Your task to perform on an android device: open a bookmark in the chrome app Image 0: 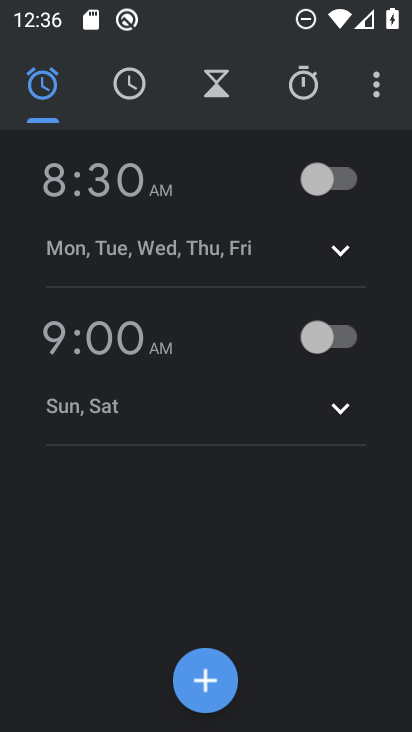
Step 0: press home button
Your task to perform on an android device: open a bookmark in the chrome app Image 1: 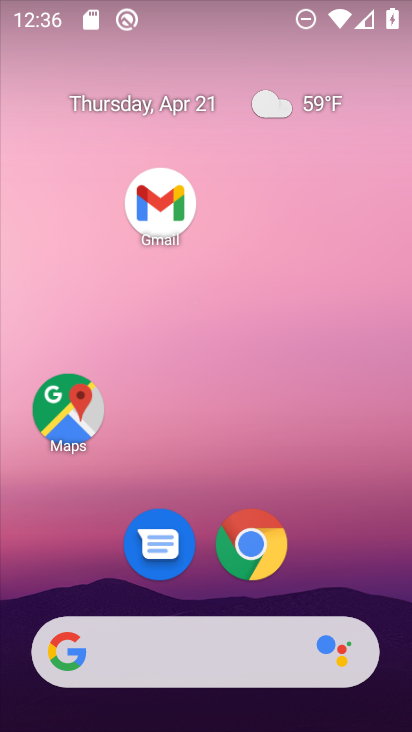
Step 1: click (259, 542)
Your task to perform on an android device: open a bookmark in the chrome app Image 2: 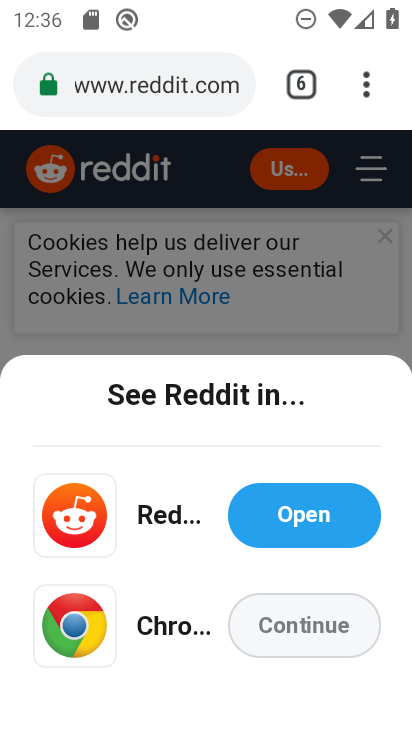
Step 2: click (364, 96)
Your task to perform on an android device: open a bookmark in the chrome app Image 3: 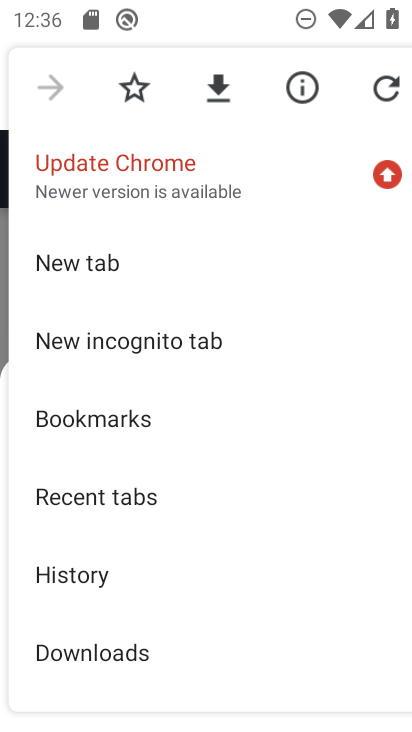
Step 3: click (176, 431)
Your task to perform on an android device: open a bookmark in the chrome app Image 4: 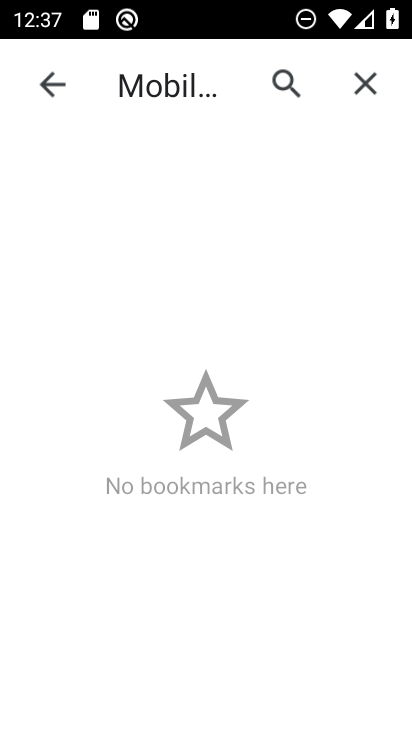
Step 4: task complete